Your task to perform on an android device: Open wifi settings Image 0: 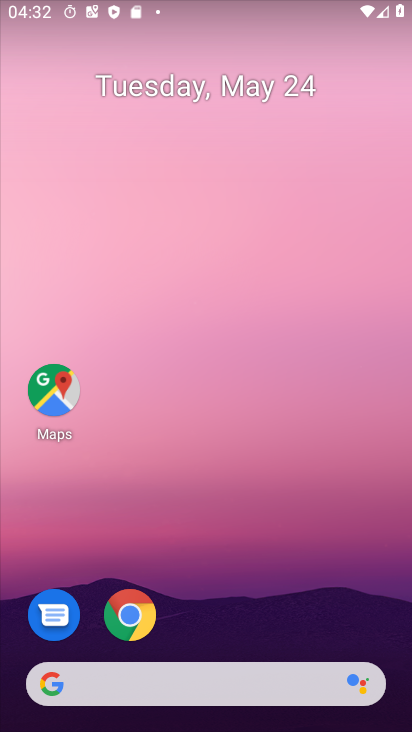
Step 0: drag from (90, 11) to (145, 436)
Your task to perform on an android device: Open wifi settings Image 1: 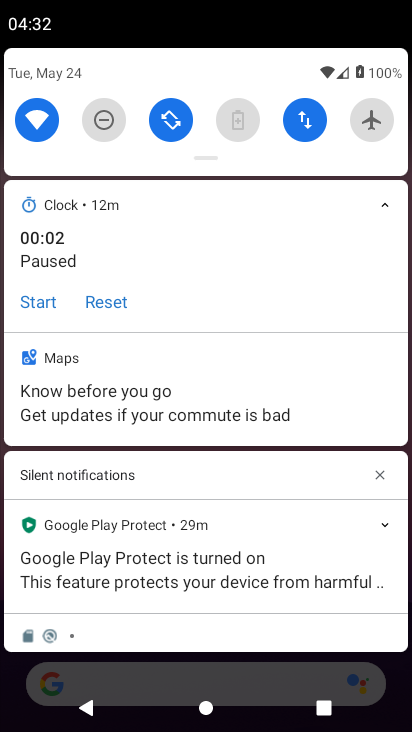
Step 1: click (34, 120)
Your task to perform on an android device: Open wifi settings Image 2: 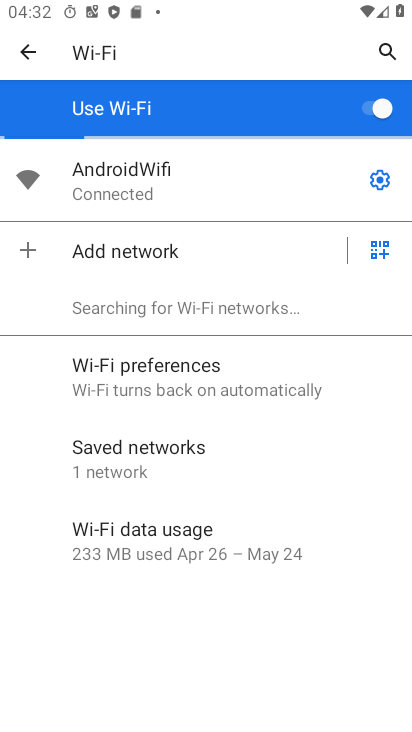
Step 2: task complete